Your task to perform on an android device: View the shopping cart on bestbuy.com. Search for "macbook" on bestbuy.com, select the first entry, add it to the cart, then select checkout. Image 0: 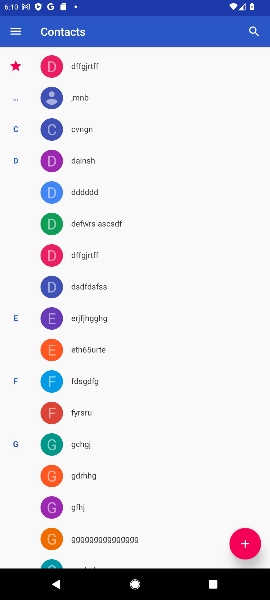
Step 0: press home button
Your task to perform on an android device: View the shopping cart on bestbuy.com. Search for "macbook" on bestbuy.com, select the first entry, add it to the cart, then select checkout. Image 1: 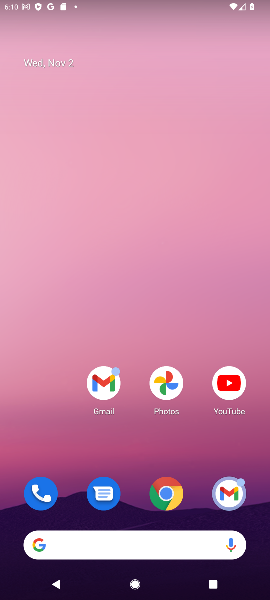
Step 1: drag from (134, 447) to (147, 88)
Your task to perform on an android device: View the shopping cart on bestbuy.com. Search for "macbook" on bestbuy.com, select the first entry, add it to the cart, then select checkout. Image 2: 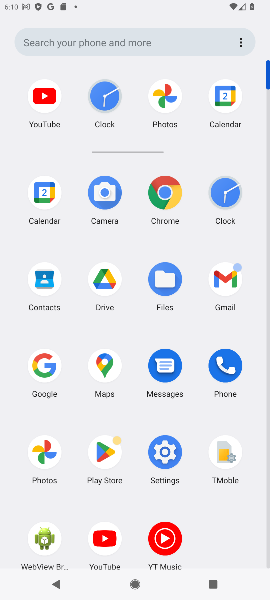
Step 2: click (37, 365)
Your task to perform on an android device: View the shopping cart on bestbuy.com. Search for "macbook" on bestbuy.com, select the first entry, add it to the cart, then select checkout. Image 3: 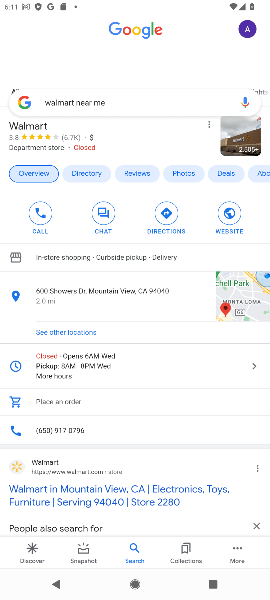
Step 3: click (111, 106)
Your task to perform on an android device: View the shopping cart on bestbuy.com. Search for "macbook" on bestbuy.com, select the first entry, add it to the cart, then select checkout. Image 4: 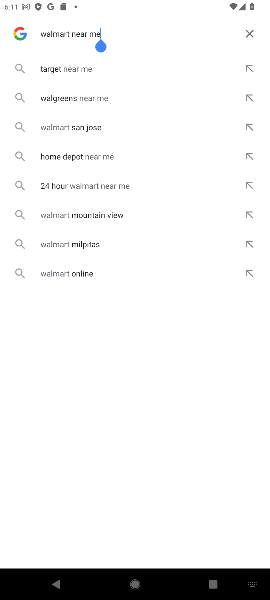
Step 4: click (243, 33)
Your task to perform on an android device: View the shopping cart on bestbuy.com. Search for "macbook" on bestbuy.com, select the first entry, add it to the cart, then select checkout. Image 5: 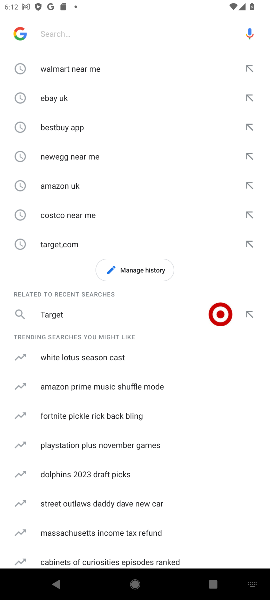
Step 5: click (48, 34)
Your task to perform on an android device: View the shopping cart on bestbuy.com. Search for "macbook" on bestbuy.com, select the first entry, add it to the cart, then select checkout. Image 6: 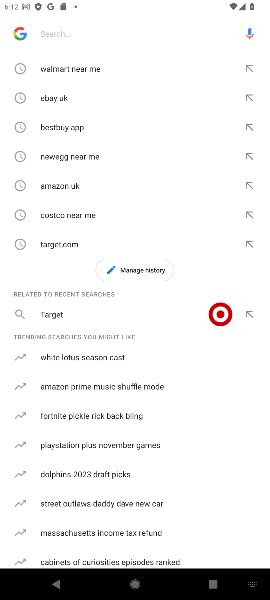
Step 6: click (67, 26)
Your task to perform on an android device: View the shopping cart on bestbuy.com. Search for "macbook" on bestbuy.com, select the first entry, add it to the cart, then select checkout. Image 7: 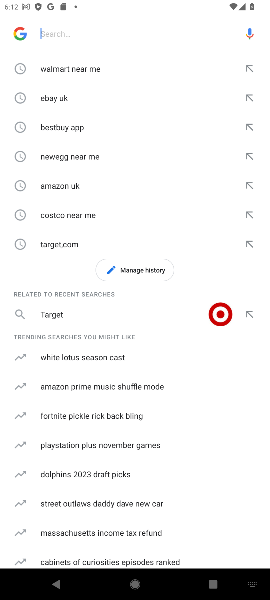
Step 7: type "bestbuy "
Your task to perform on an android device: View the shopping cart on bestbuy.com. Search for "macbook" on bestbuy.com, select the first entry, add it to the cart, then select checkout. Image 8: 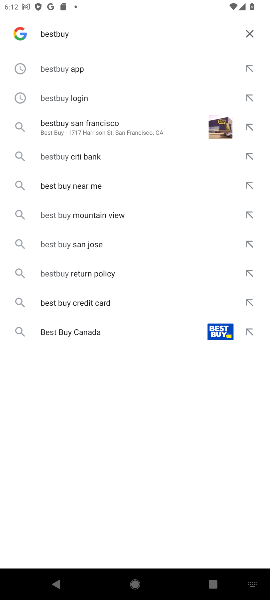
Step 8: click (49, 76)
Your task to perform on an android device: View the shopping cart on bestbuy.com. Search for "macbook" on bestbuy.com, select the first entry, add it to the cart, then select checkout. Image 9: 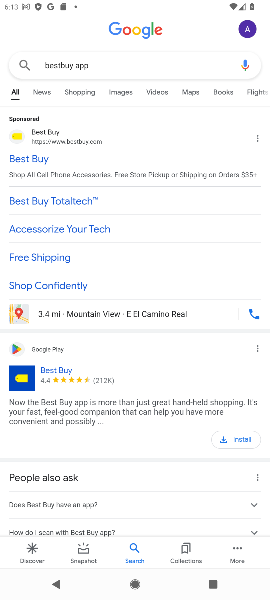
Step 9: click (17, 138)
Your task to perform on an android device: View the shopping cart on bestbuy.com. Search for "macbook" on bestbuy.com, select the first entry, add it to the cart, then select checkout. Image 10: 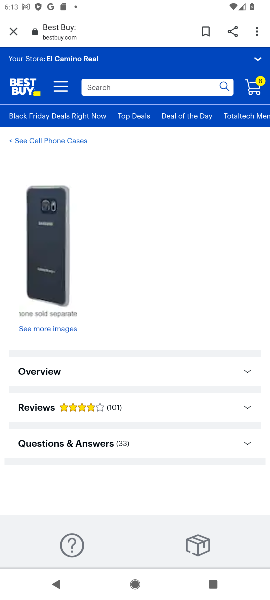
Step 10: drag from (106, 443) to (123, 556)
Your task to perform on an android device: View the shopping cart on bestbuy.com. Search for "macbook" on bestbuy.com, select the first entry, add it to the cart, then select checkout. Image 11: 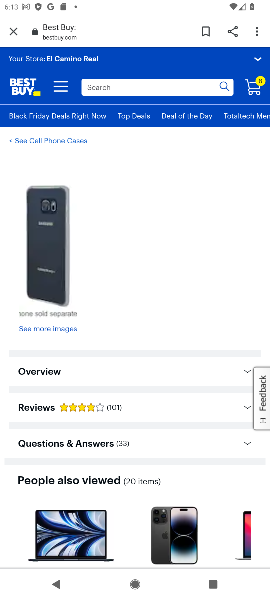
Step 11: click (139, 86)
Your task to perform on an android device: View the shopping cart on bestbuy.com. Search for "macbook" on bestbuy.com, select the first entry, add it to the cart, then select checkout. Image 12: 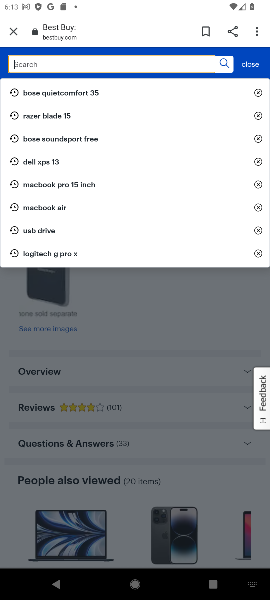
Step 12: type "macbook "
Your task to perform on an android device: View the shopping cart on bestbuy.com. Search for "macbook" on bestbuy.com, select the first entry, add it to the cart, then select checkout. Image 13: 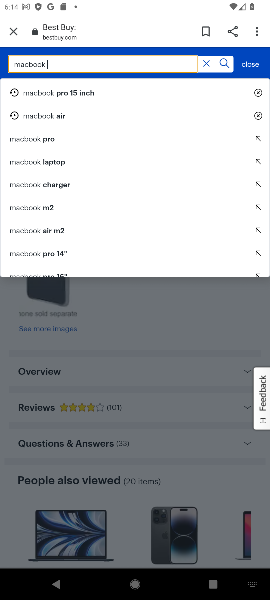
Step 13: click (39, 109)
Your task to perform on an android device: View the shopping cart on bestbuy.com. Search for "macbook" on bestbuy.com, select the first entry, add it to the cart, then select checkout. Image 14: 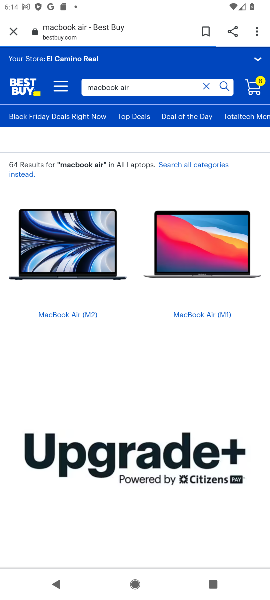
Step 14: click (71, 238)
Your task to perform on an android device: View the shopping cart on bestbuy.com. Search for "macbook" on bestbuy.com, select the first entry, add it to the cart, then select checkout. Image 15: 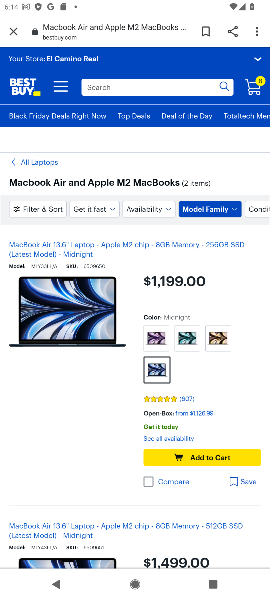
Step 15: click (212, 440)
Your task to perform on an android device: View the shopping cart on bestbuy.com. Search for "macbook" on bestbuy.com, select the first entry, add it to the cart, then select checkout. Image 16: 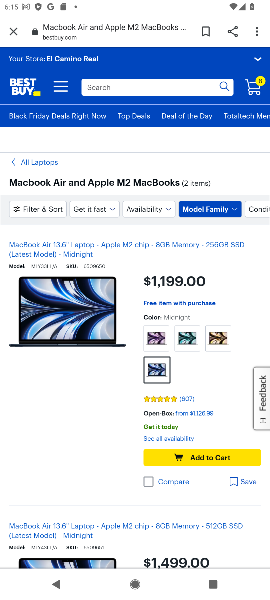
Step 16: click (197, 454)
Your task to perform on an android device: View the shopping cart on bestbuy.com. Search for "macbook" on bestbuy.com, select the first entry, add it to the cart, then select checkout. Image 17: 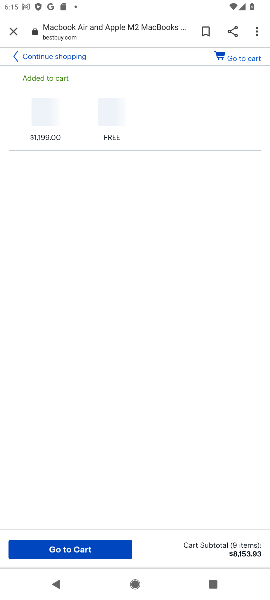
Step 17: task complete